Your task to perform on an android device: check data usage Image 0: 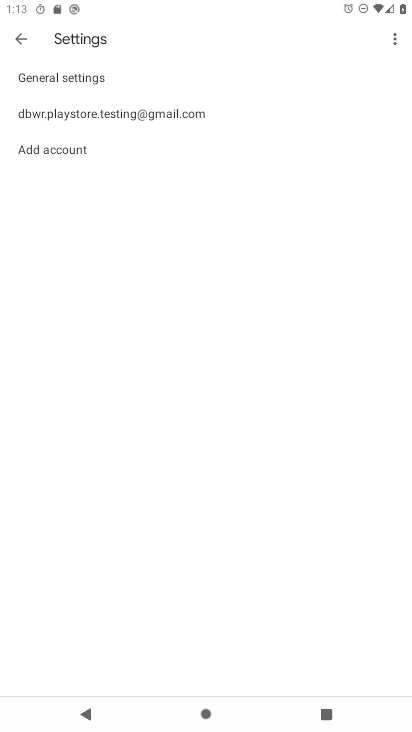
Step 0: press home button
Your task to perform on an android device: check data usage Image 1: 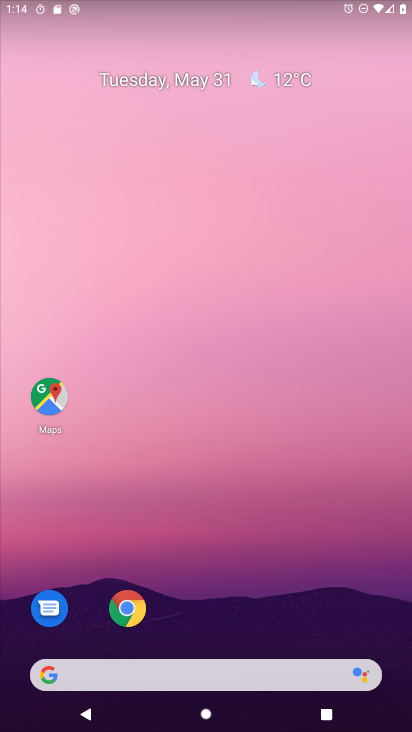
Step 1: drag from (290, 603) to (321, 0)
Your task to perform on an android device: check data usage Image 2: 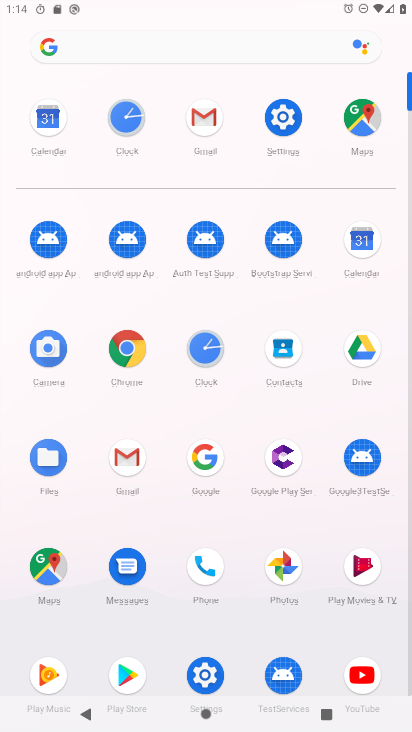
Step 2: click (283, 121)
Your task to perform on an android device: check data usage Image 3: 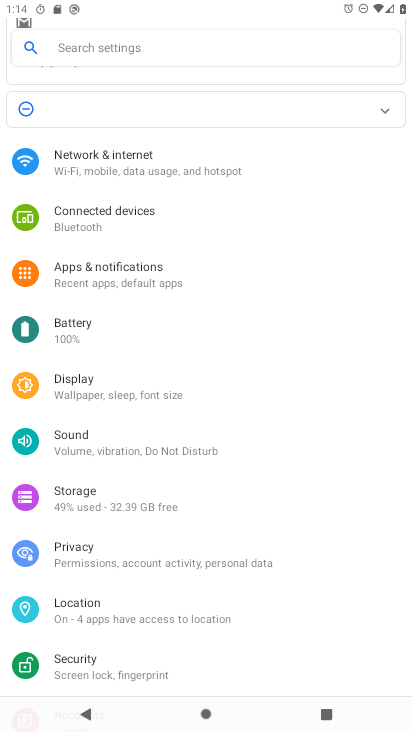
Step 3: click (89, 170)
Your task to perform on an android device: check data usage Image 4: 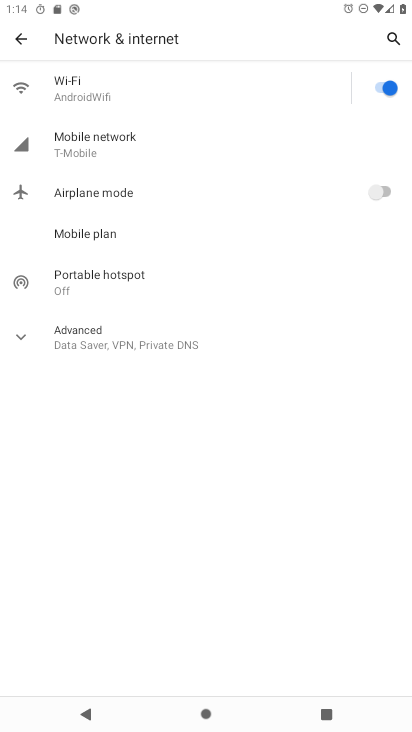
Step 4: click (84, 152)
Your task to perform on an android device: check data usage Image 5: 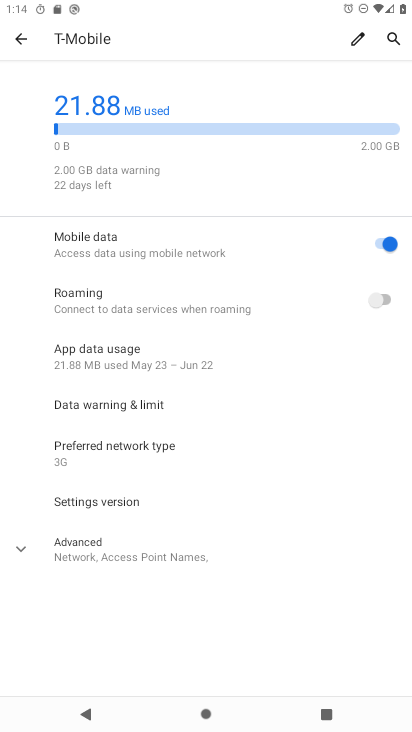
Step 5: click (87, 362)
Your task to perform on an android device: check data usage Image 6: 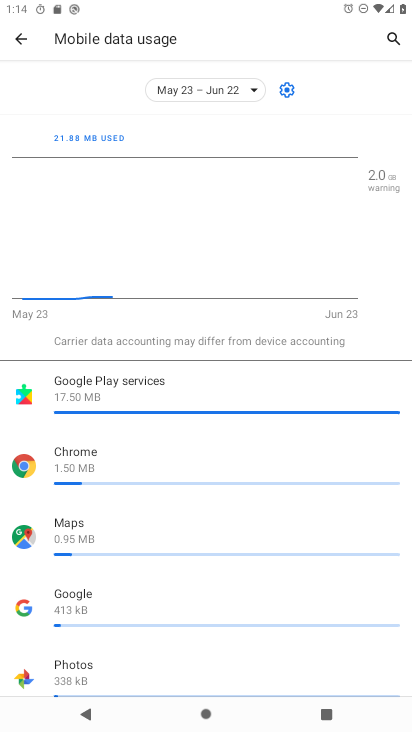
Step 6: task complete